Your task to perform on an android device: See recent photos Image 0: 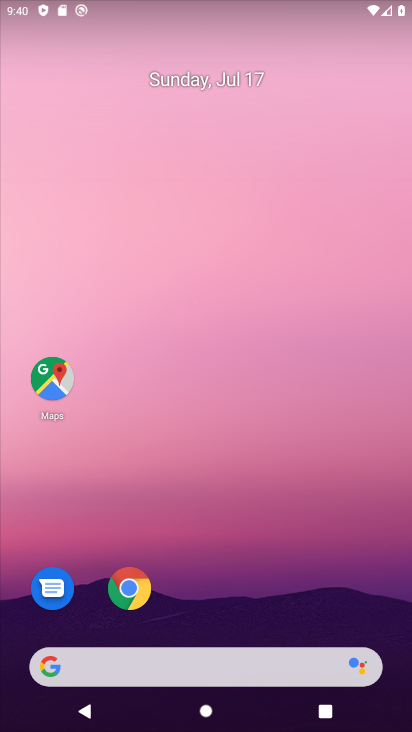
Step 0: drag from (289, 583) to (391, 0)
Your task to perform on an android device: See recent photos Image 1: 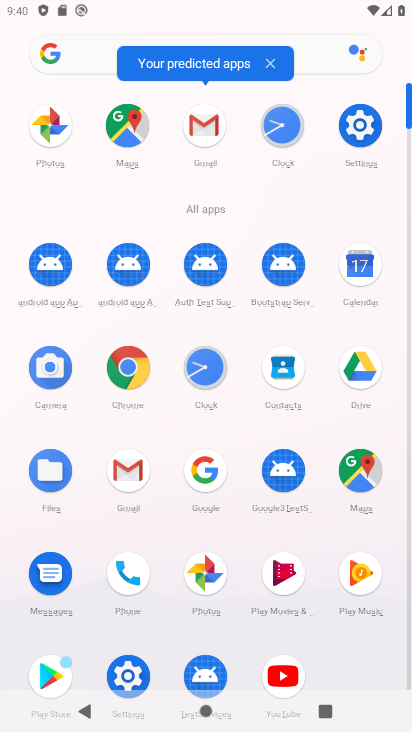
Step 1: click (215, 589)
Your task to perform on an android device: See recent photos Image 2: 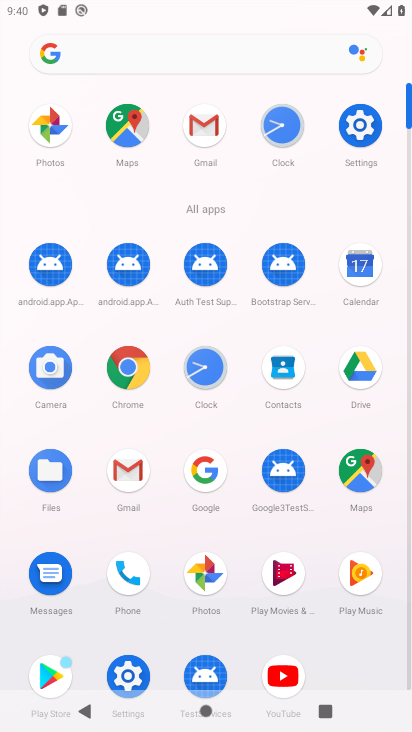
Step 2: click (47, 130)
Your task to perform on an android device: See recent photos Image 3: 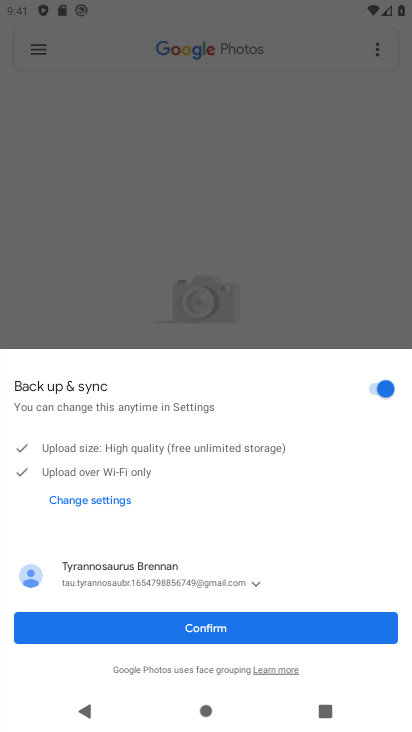
Step 3: click (205, 628)
Your task to perform on an android device: See recent photos Image 4: 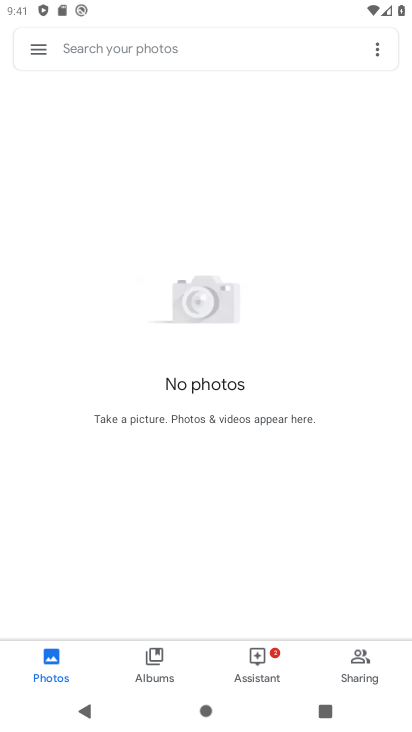
Step 4: task complete